Your task to perform on an android device: Open the map Image 0: 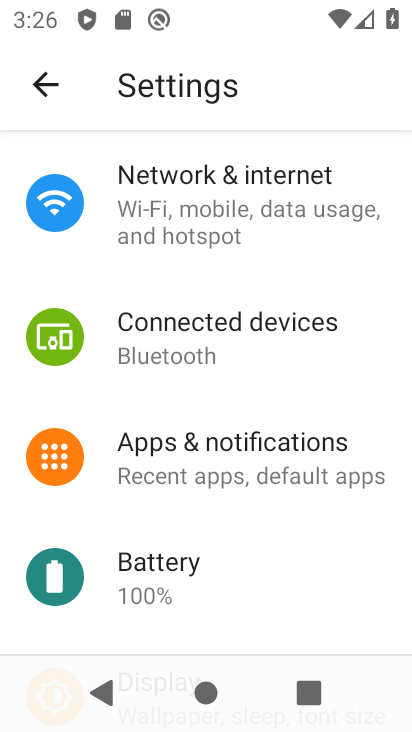
Step 0: press home button
Your task to perform on an android device: Open the map Image 1: 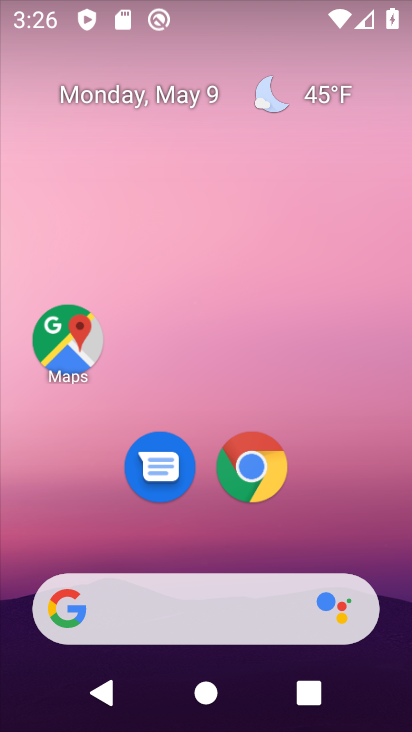
Step 1: click (75, 348)
Your task to perform on an android device: Open the map Image 2: 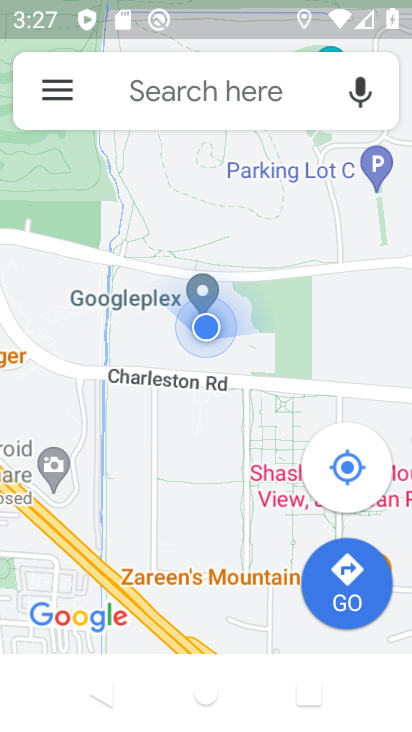
Step 2: task complete